Your task to perform on an android device: toggle show notifications on the lock screen Image 0: 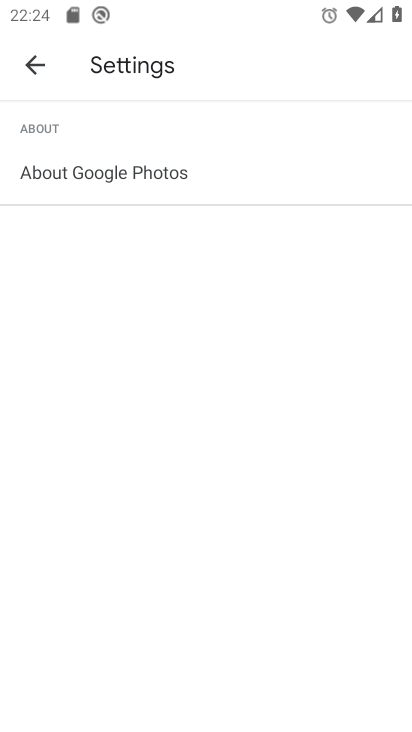
Step 0: press home button
Your task to perform on an android device: toggle show notifications on the lock screen Image 1: 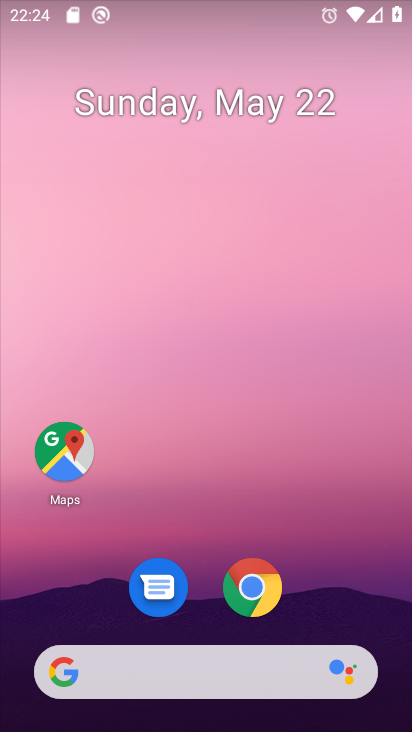
Step 1: drag from (207, 429) to (247, 24)
Your task to perform on an android device: toggle show notifications on the lock screen Image 2: 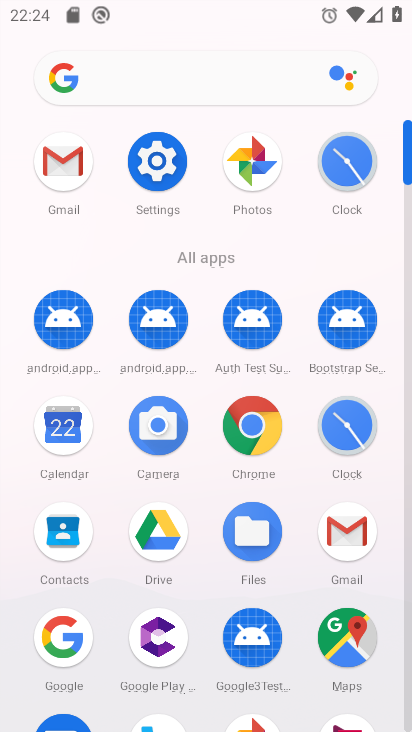
Step 2: click (172, 154)
Your task to perform on an android device: toggle show notifications on the lock screen Image 3: 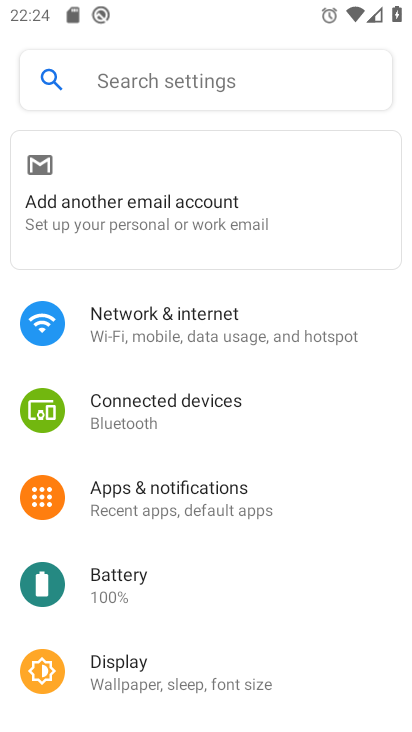
Step 3: click (200, 505)
Your task to perform on an android device: toggle show notifications on the lock screen Image 4: 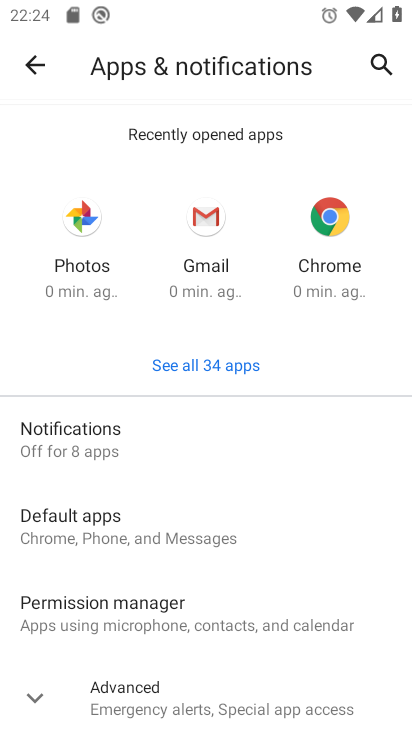
Step 4: click (185, 453)
Your task to perform on an android device: toggle show notifications on the lock screen Image 5: 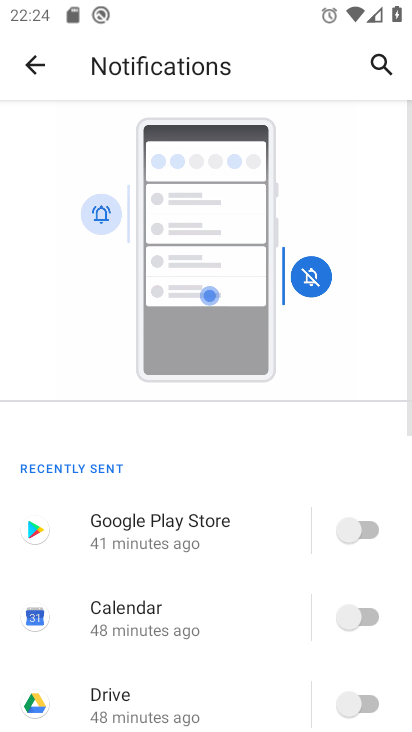
Step 5: drag from (227, 580) to (209, 179)
Your task to perform on an android device: toggle show notifications on the lock screen Image 6: 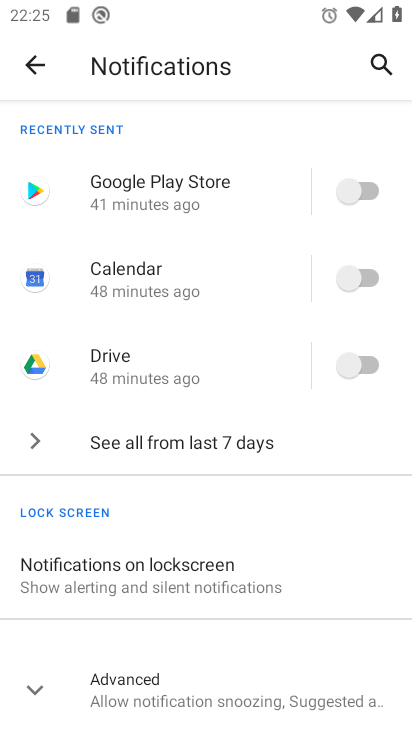
Step 6: click (183, 570)
Your task to perform on an android device: toggle show notifications on the lock screen Image 7: 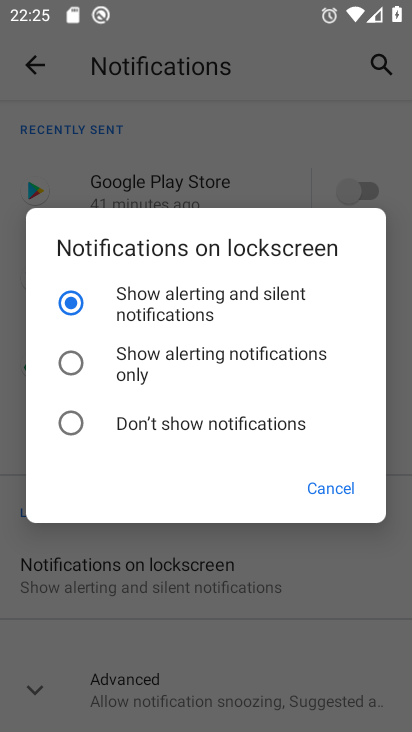
Step 7: click (65, 412)
Your task to perform on an android device: toggle show notifications on the lock screen Image 8: 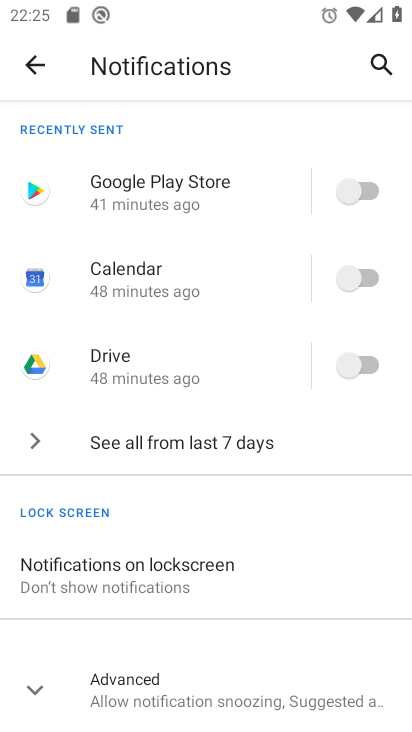
Step 8: task complete